Your task to perform on an android device: Turn on the flashlight Image 0: 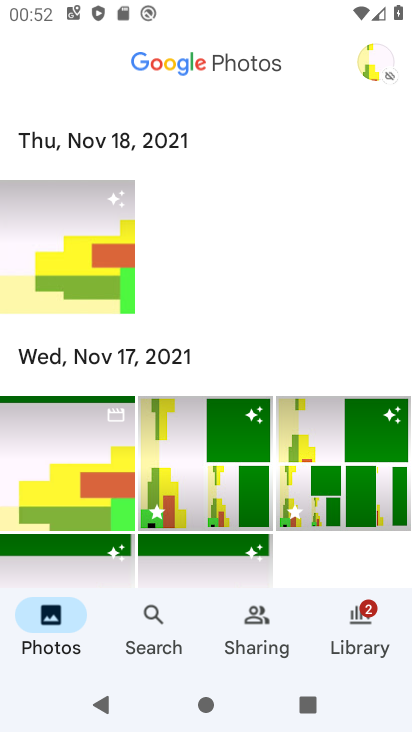
Step 0: press home button
Your task to perform on an android device: Turn on the flashlight Image 1: 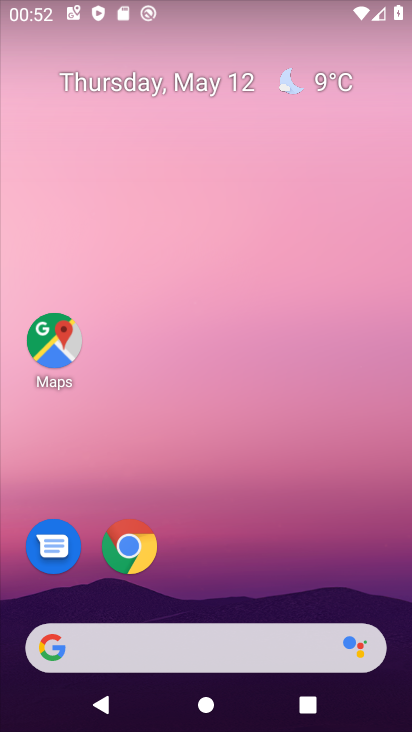
Step 1: drag from (157, 600) to (162, 242)
Your task to perform on an android device: Turn on the flashlight Image 2: 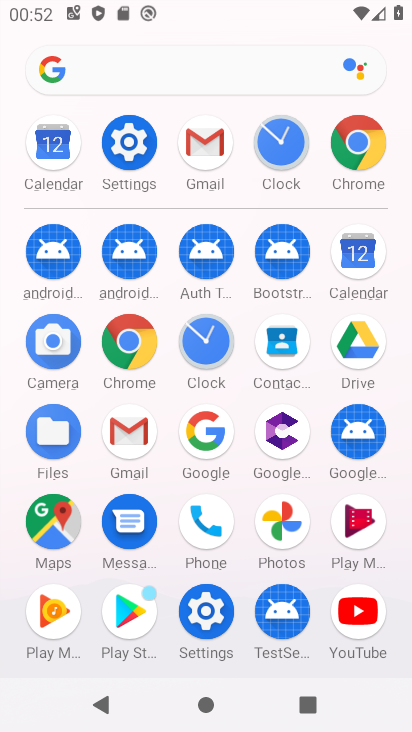
Step 2: click (201, 610)
Your task to perform on an android device: Turn on the flashlight Image 3: 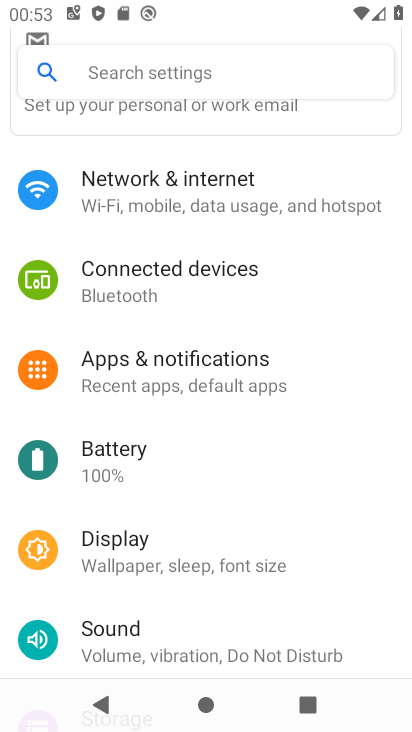
Step 3: click (146, 550)
Your task to perform on an android device: Turn on the flashlight Image 4: 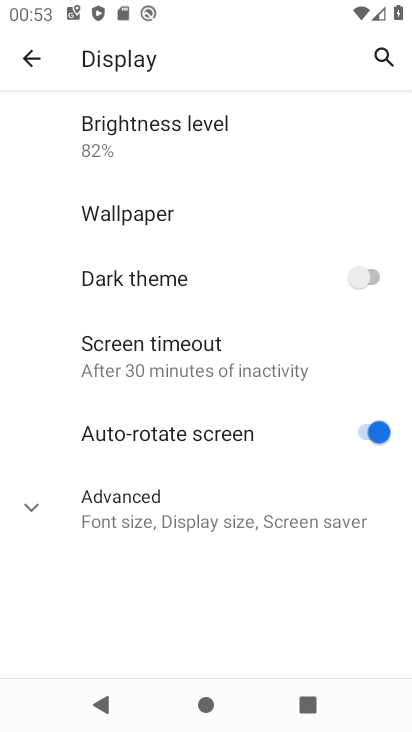
Step 4: task complete